Your task to perform on an android device: Add "alienware aurora" to the cart on costco.com Image 0: 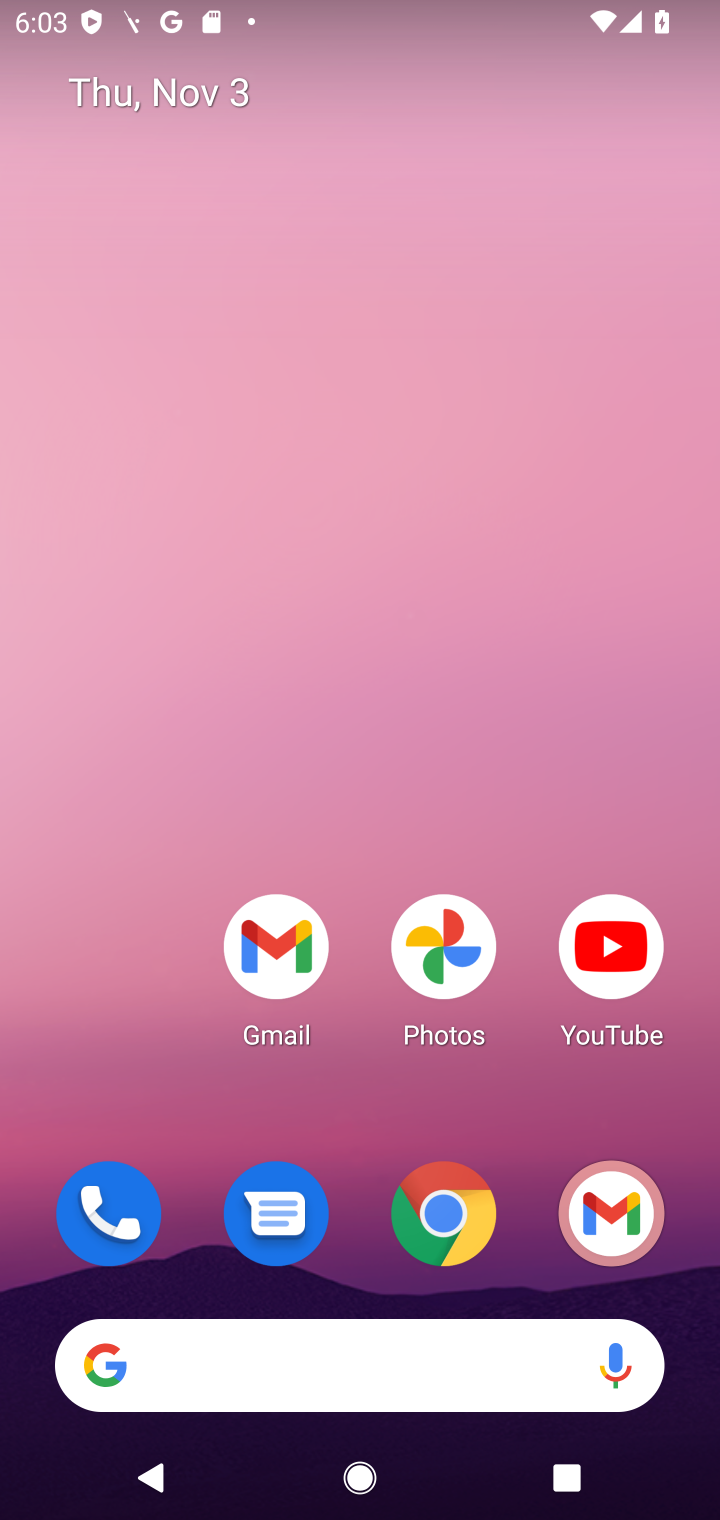
Step 0: click (463, 1225)
Your task to perform on an android device: Add "alienware aurora" to the cart on costco.com Image 1: 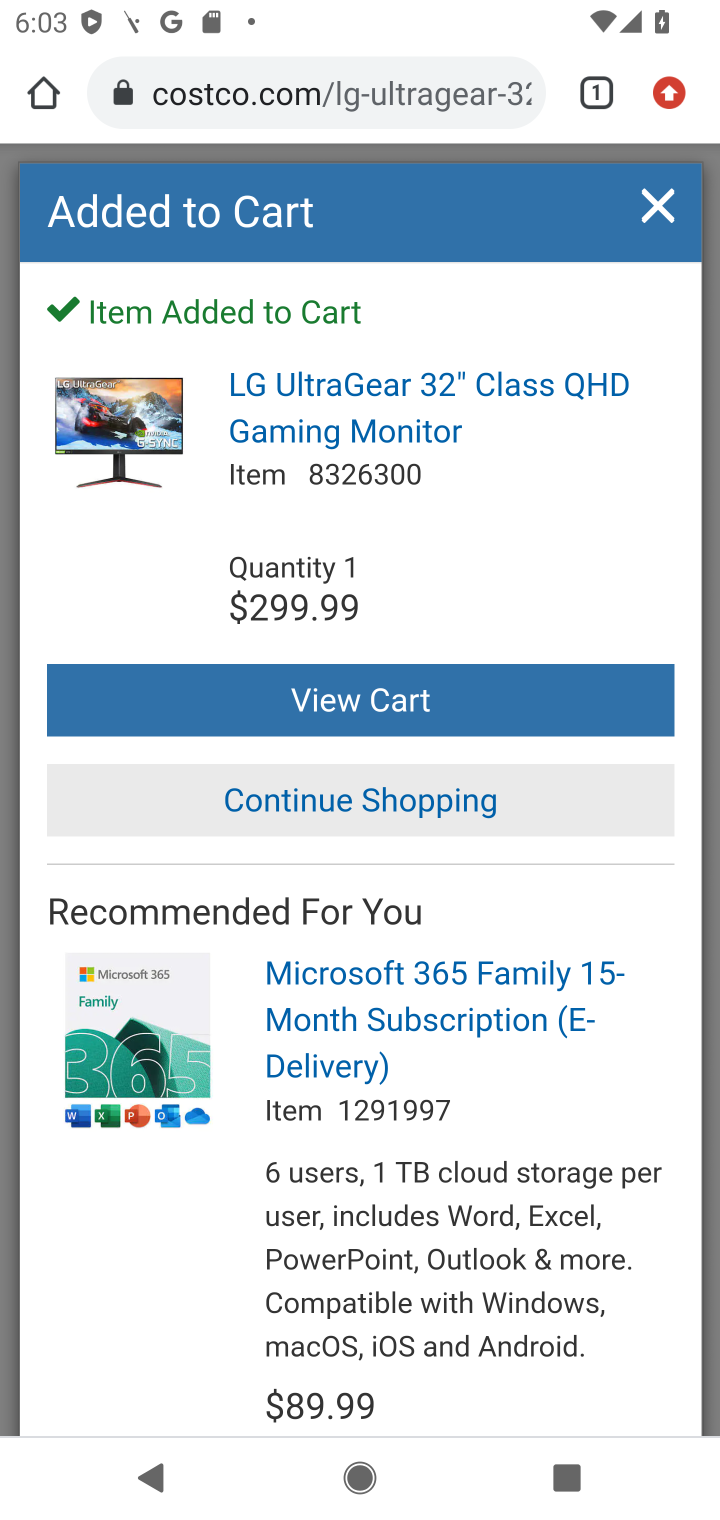
Step 1: click (421, 100)
Your task to perform on an android device: Add "alienware aurora" to the cart on costco.com Image 2: 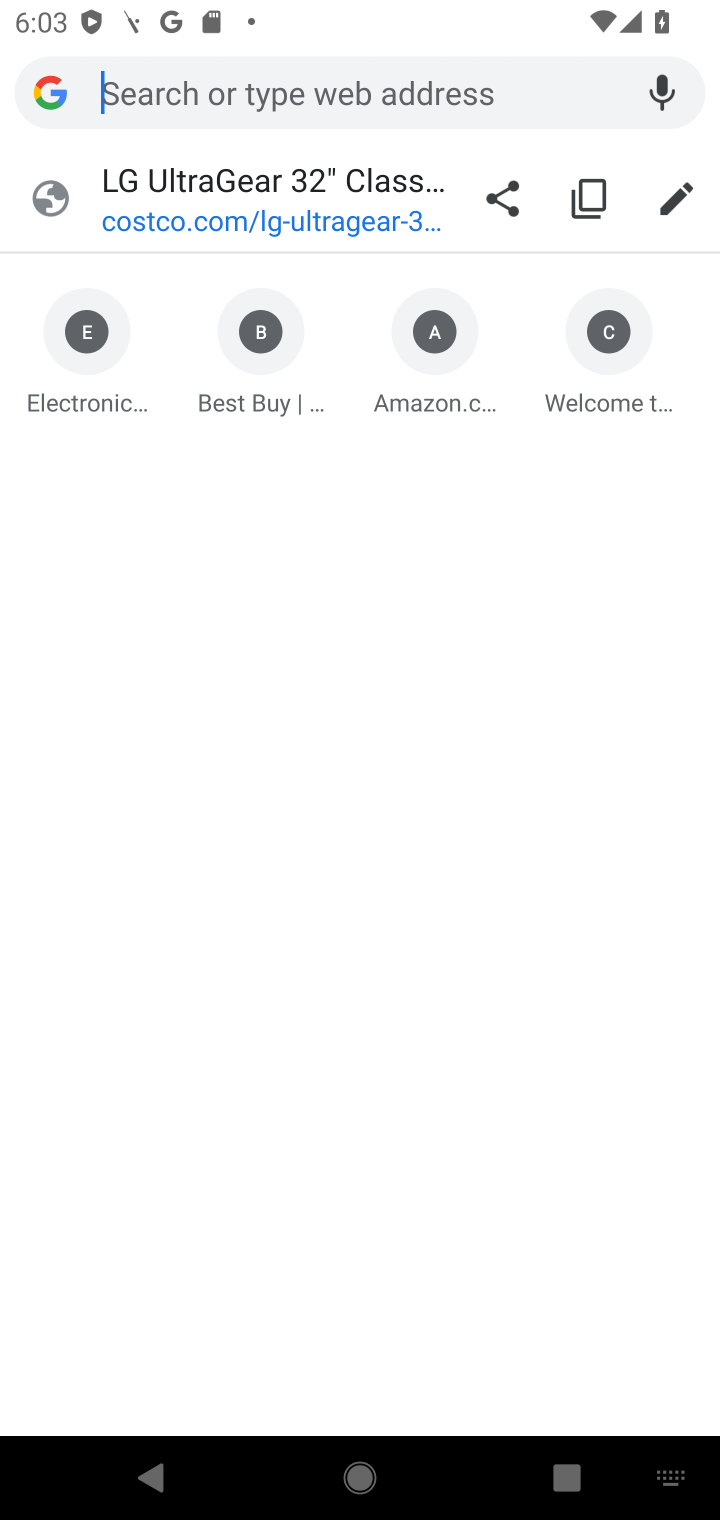
Step 2: type "costco.com"
Your task to perform on an android device: Add "alienware aurora" to the cart on costco.com Image 3: 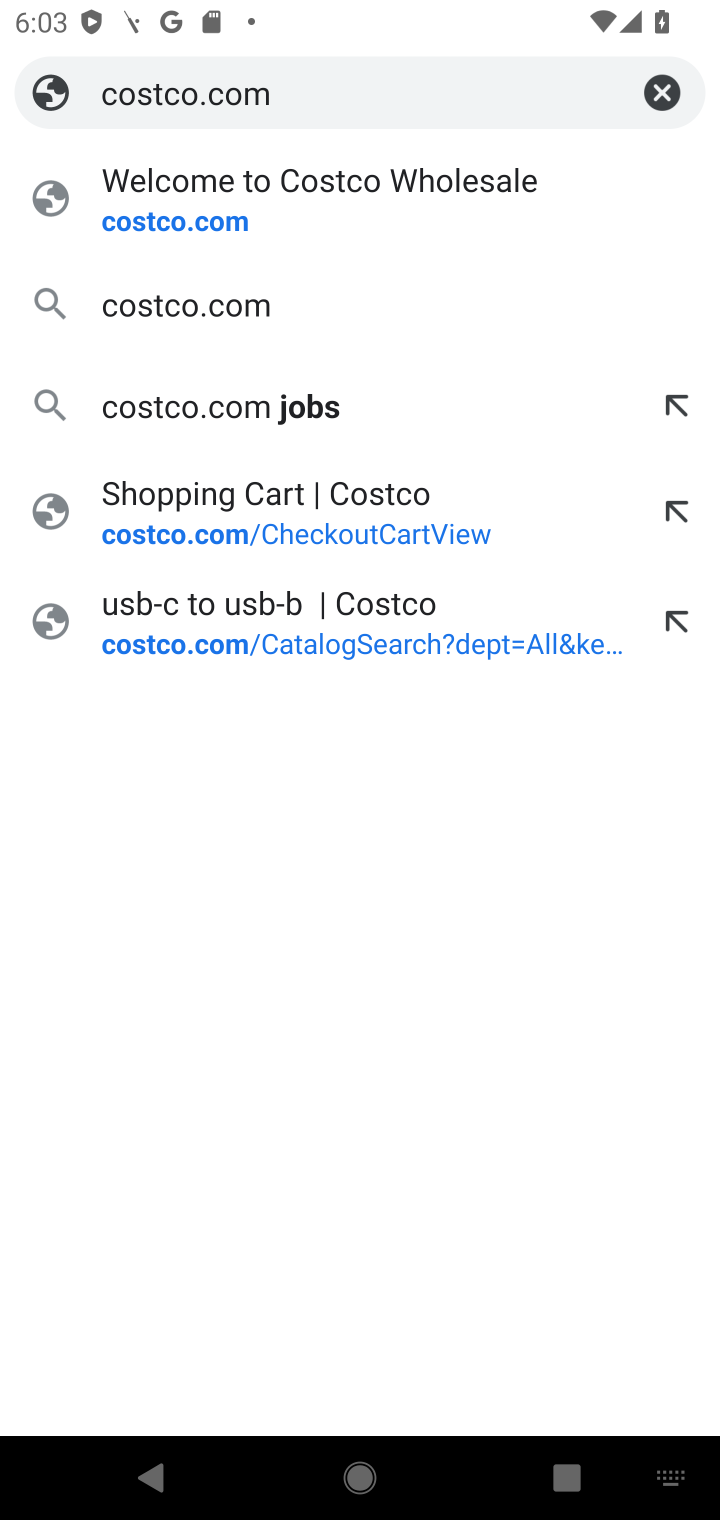
Step 3: click (168, 222)
Your task to perform on an android device: Add "alienware aurora" to the cart on costco.com Image 4: 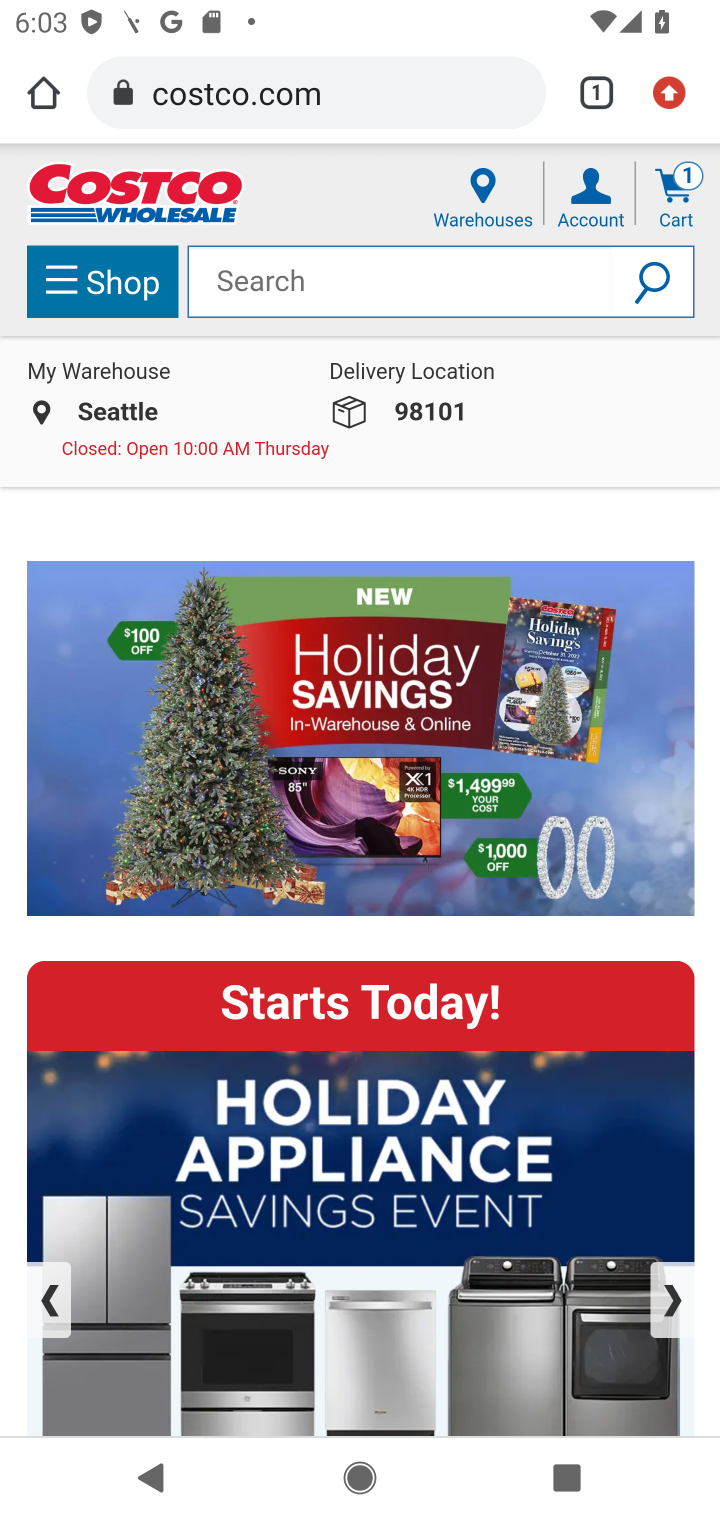
Step 4: click (238, 271)
Your task to perform on an android device: Add "alienware aurora" to the cart on costco.com Image 5: 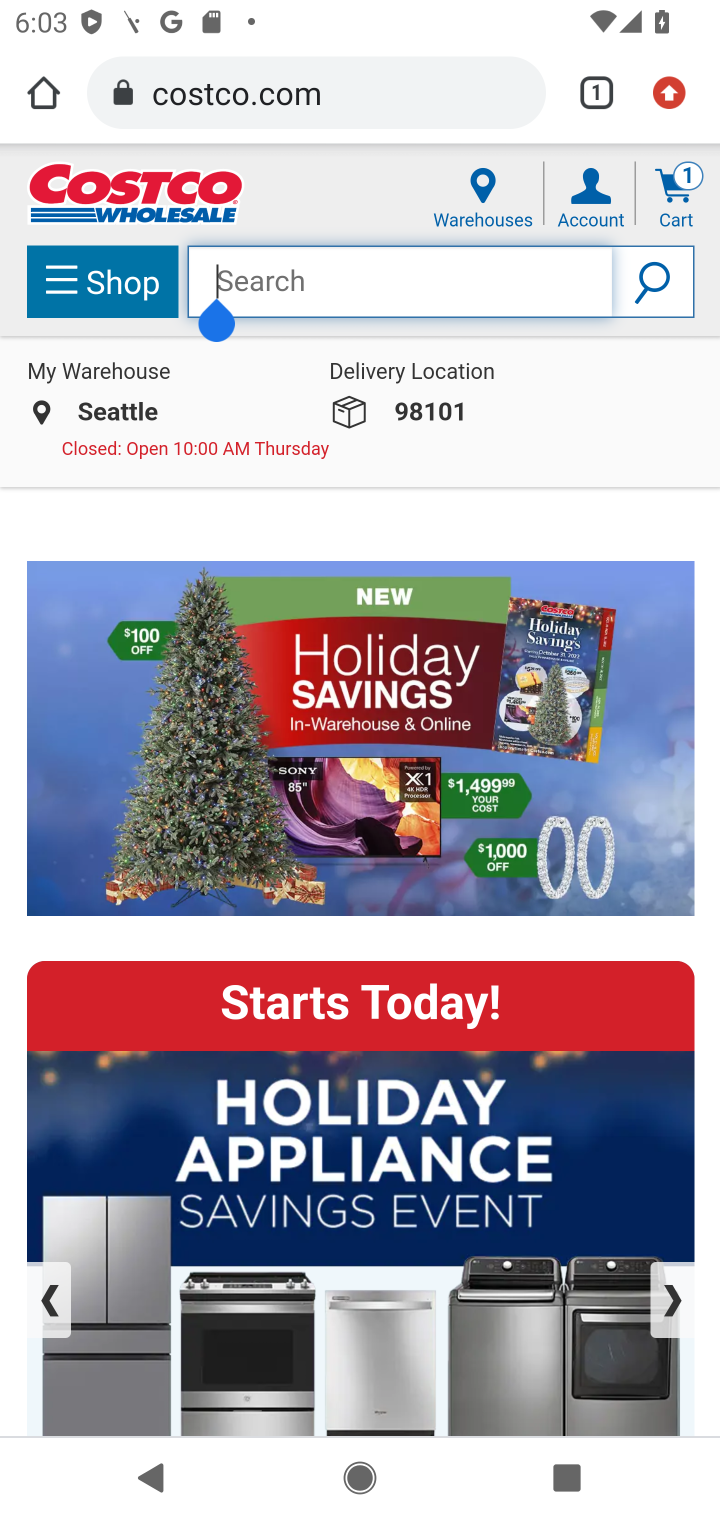
Step 5: type "alienware aurora"
Your task to perform on an android device: Add "alienware aurora" to the cart on costco.com Image 6: 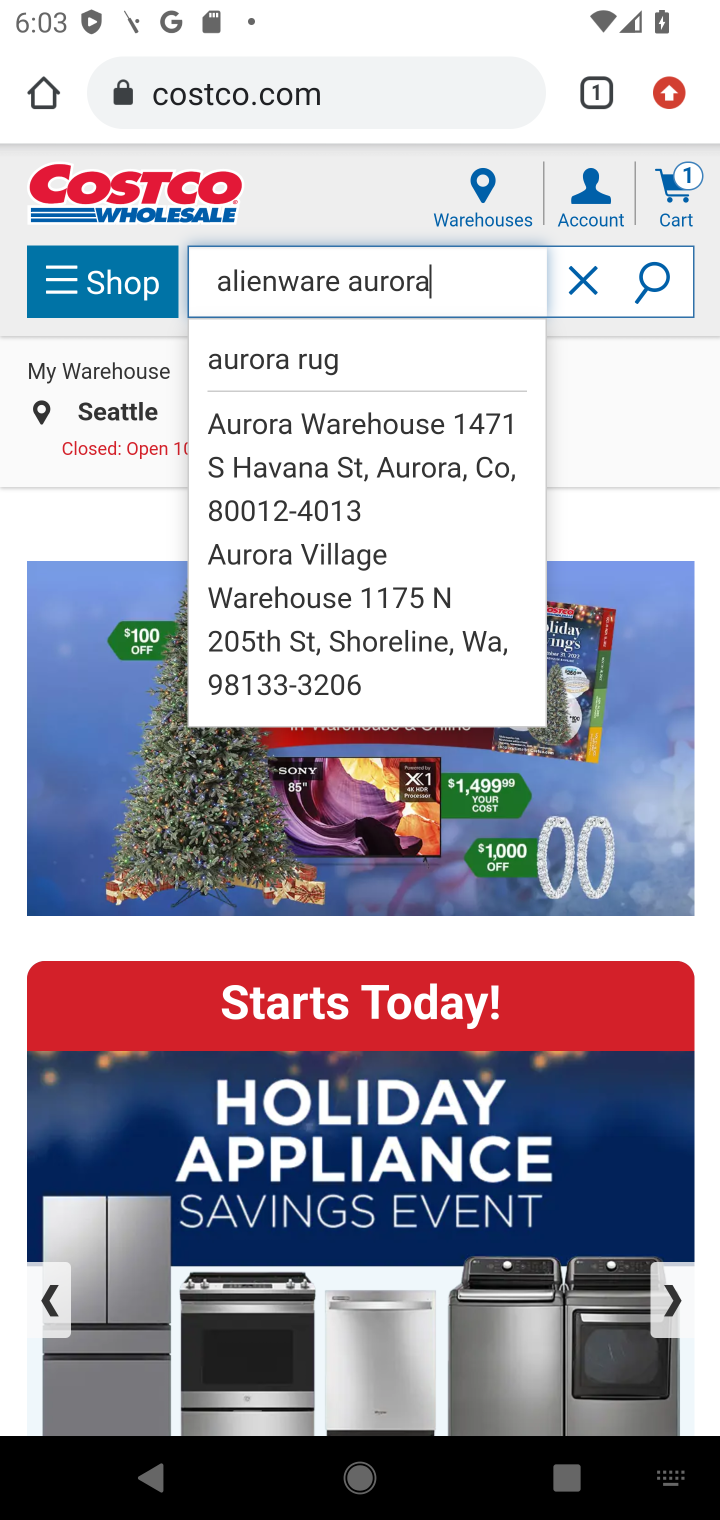
Step 6: click (659, 281)
Your task to perform on an android device: Add "alienware aurora" to the cart on costco.com Image 7: 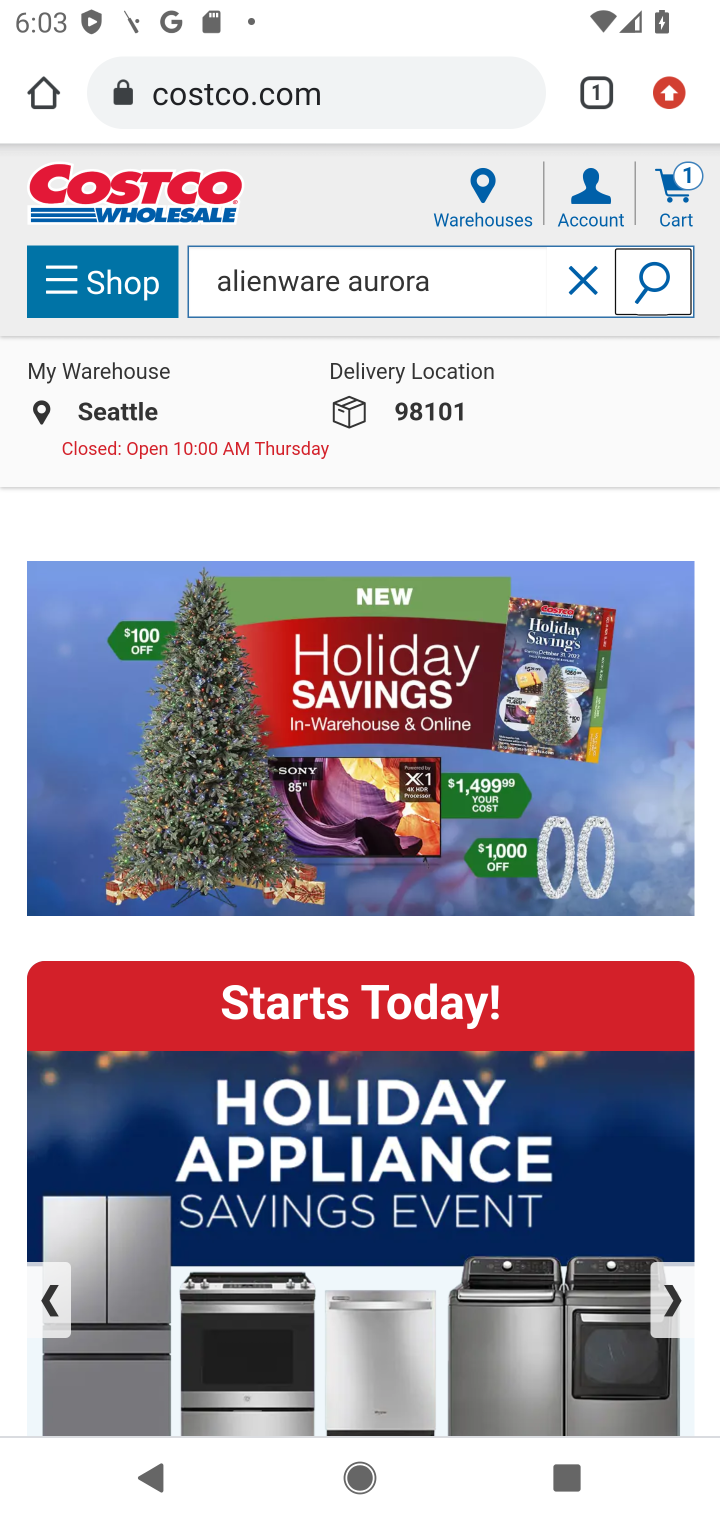
Step 7: click (646, 278)
Your task to perform on an android device: Add "alienware aurora" to the cart on costco.com Image 8: 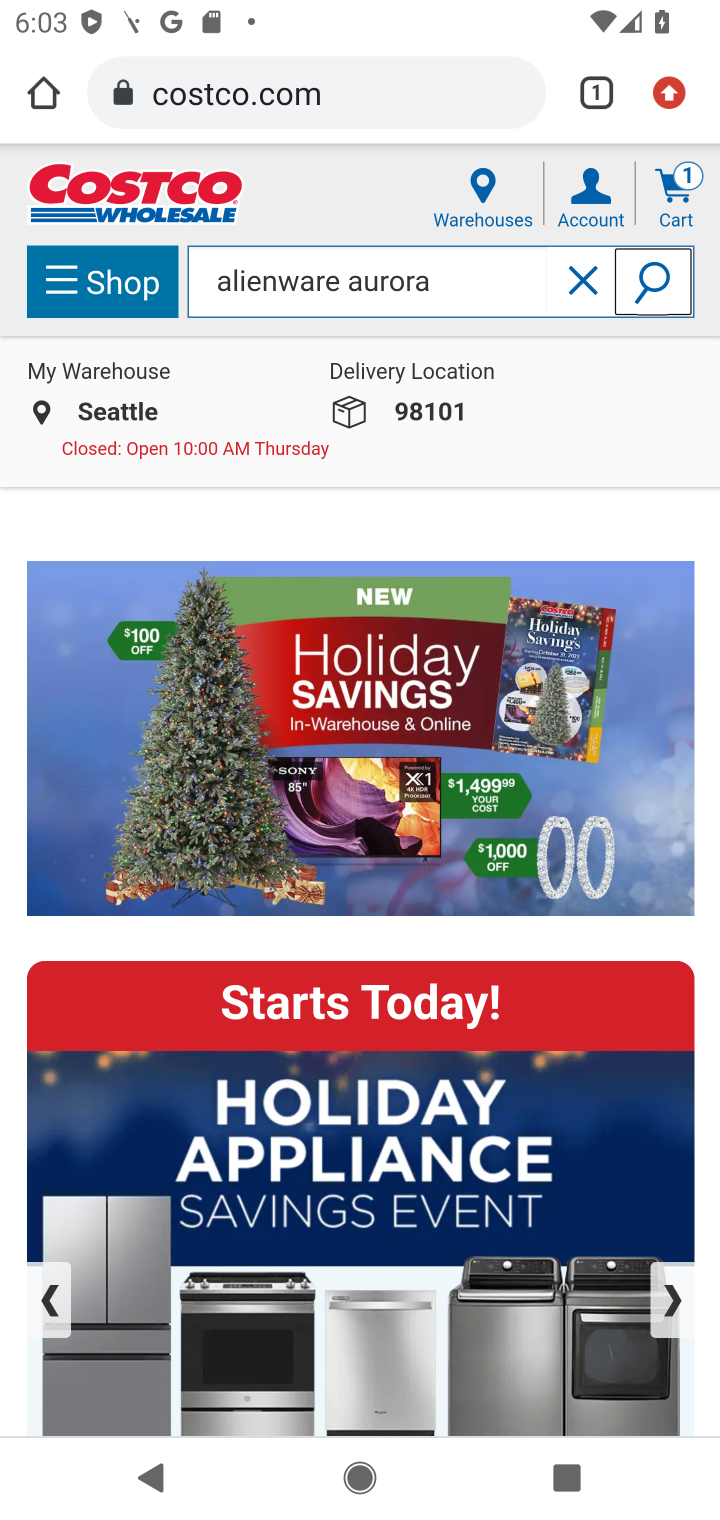
Step 8: click (657, 289)
Your task to perform on an android device: Add "alienware aurora" to the cart on costco.com Image 9: 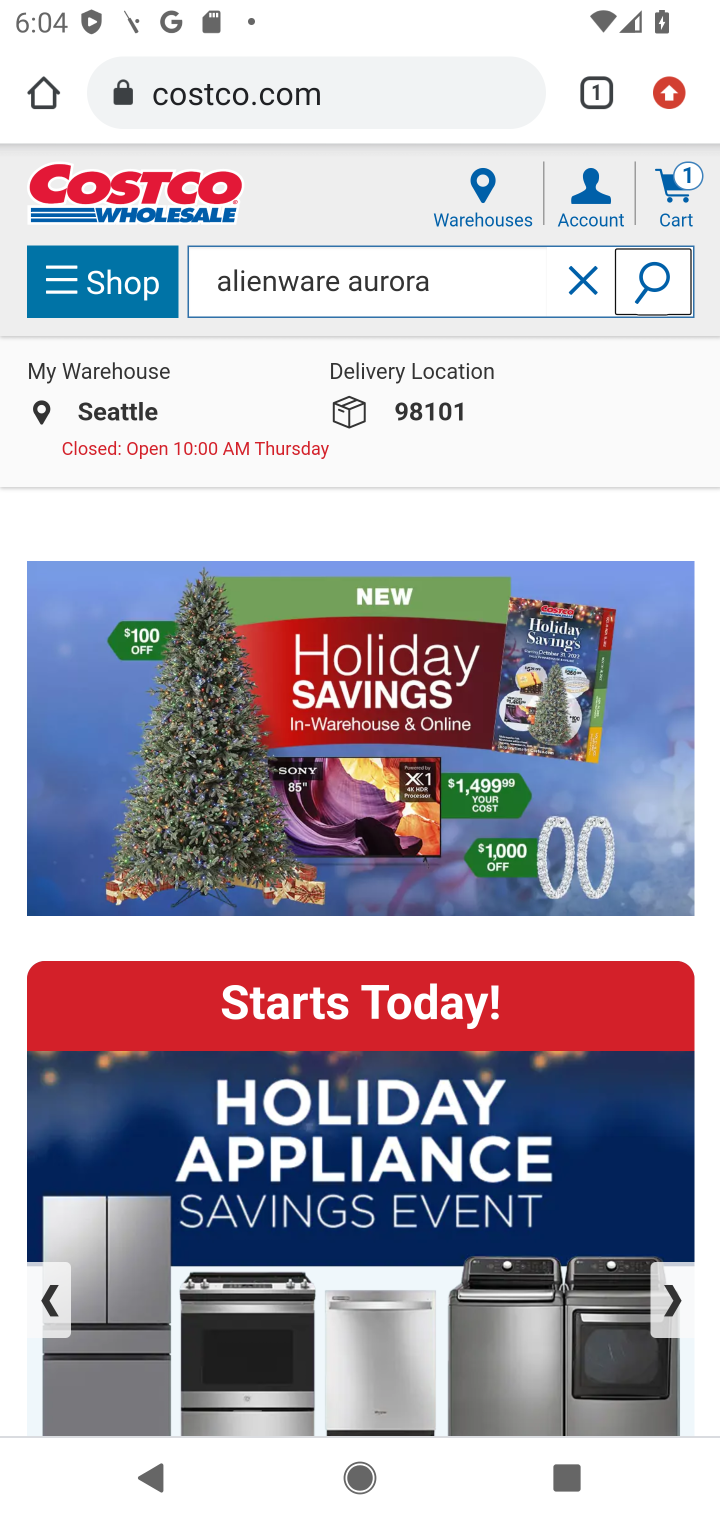
Step 9: click (657, 289)
Your task to perform on an android device: Add "alienware aurora" to the cart on costco.com Image 10: 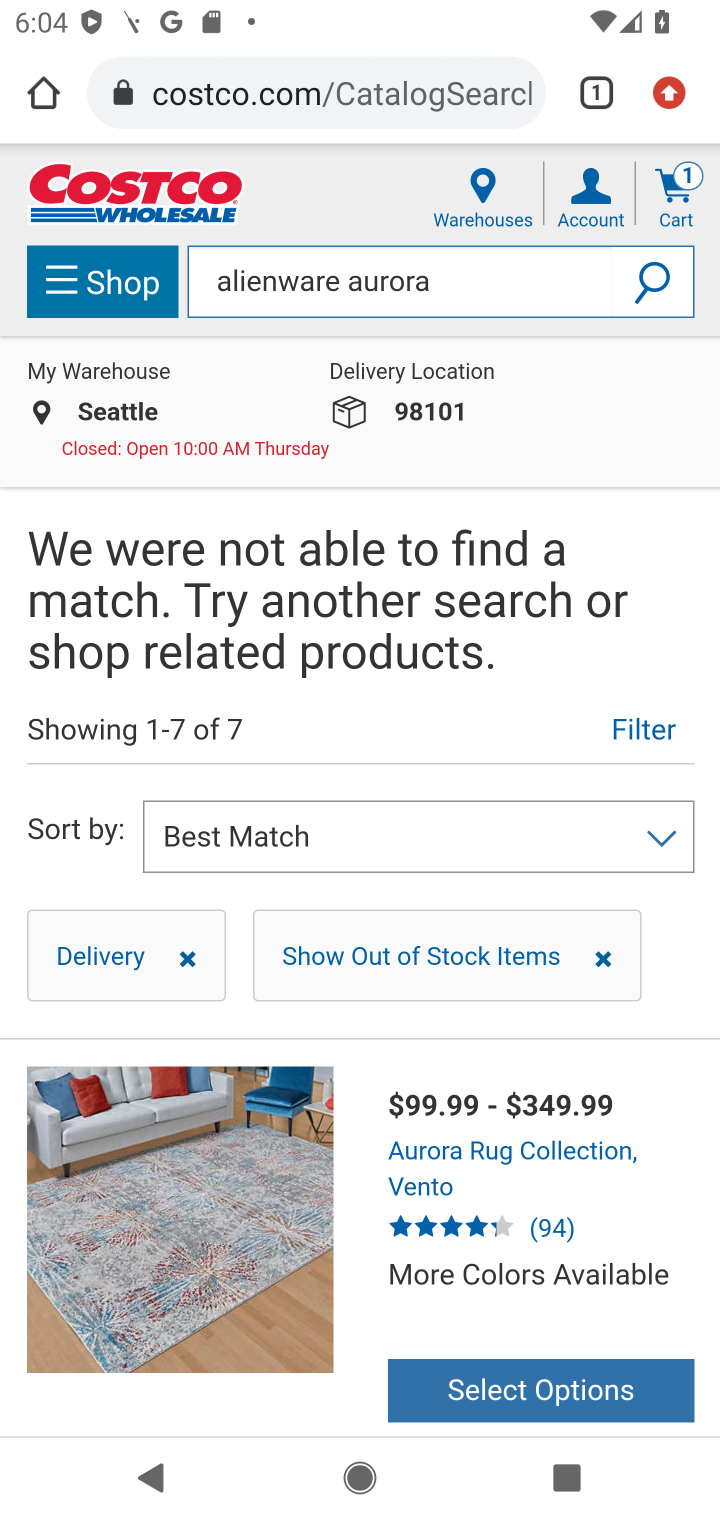
Step 10: task complete